Your task to perform on an android device: Search for sushi restaurants on Maps Image 0: 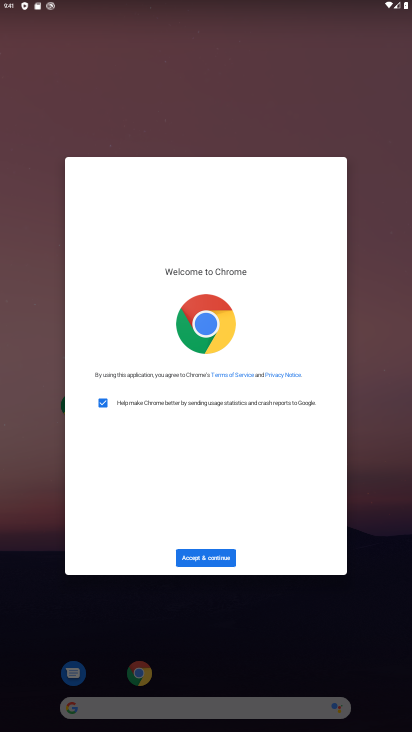
Step 0: press home button
Your task to perform on an android device: Search for sushi restaurants on Maps Image 1: 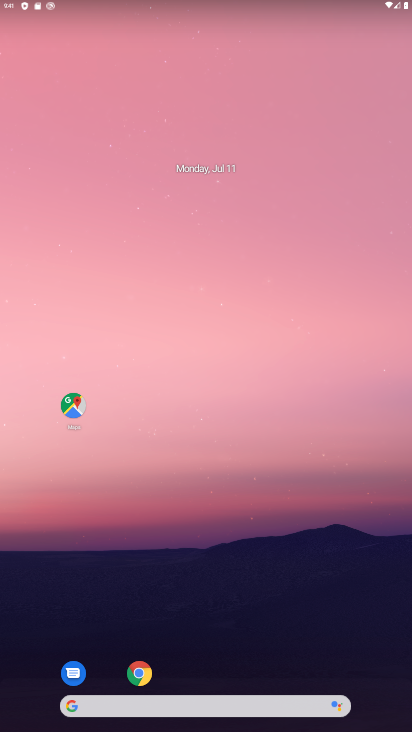
Step 1: drag from (213, 728) to (246, 105)
Your task to perform on an android device: Search for sushi restaurants on Maps Image 2: 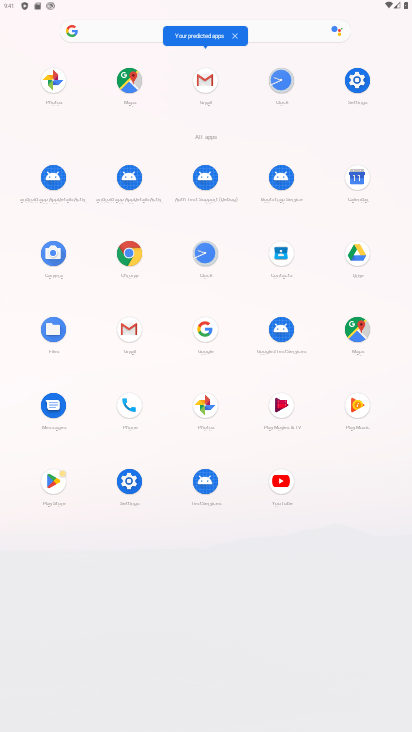
Step 2: click (349, 334)
Your task to perform on an android device: Search for sushi restaurants on Maps Image 3: 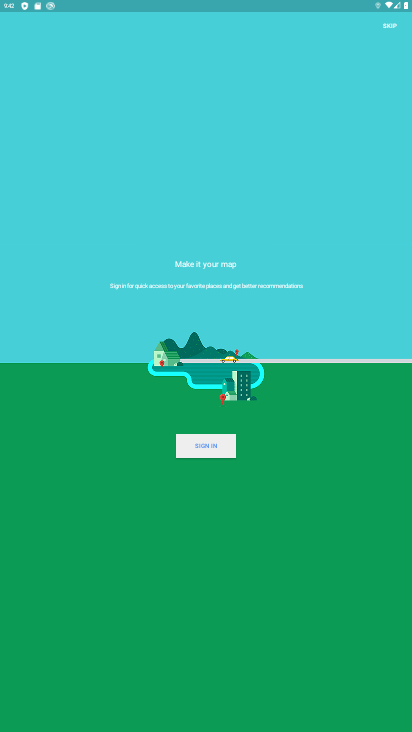
Step 3: click (386, 17)
Your task to perform on an android device: Search for sushi restaurants on Maps Image 4: 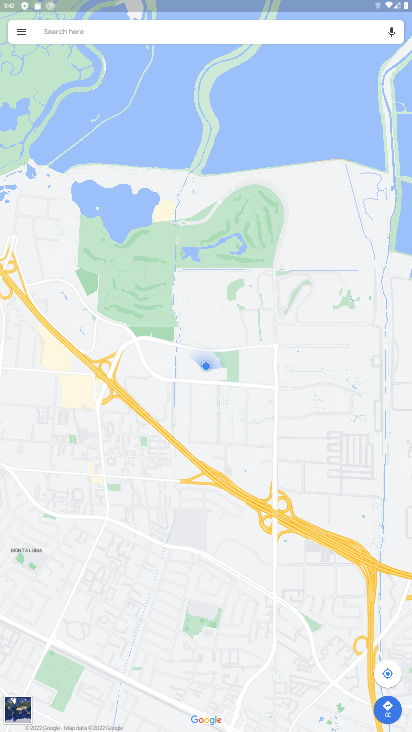
Step 4: click (138, 37)
Your task to perform on an android device: Search for sushi restaurants on Maps Image 5: 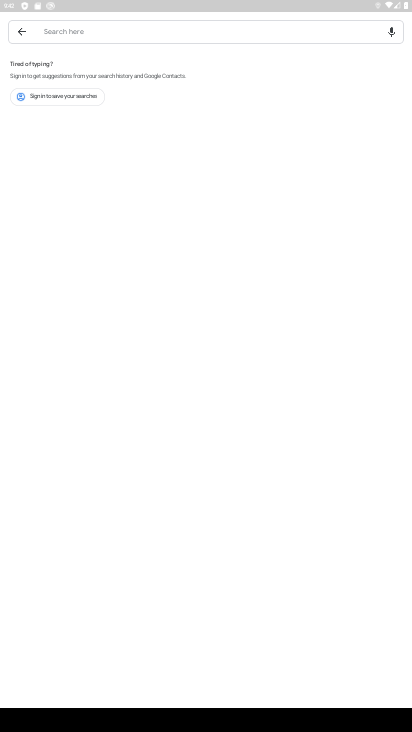
Step 5: type "sushi restaurants"
Your task to perform on an android device: Search for sushi restaurants on Maps Image 6: 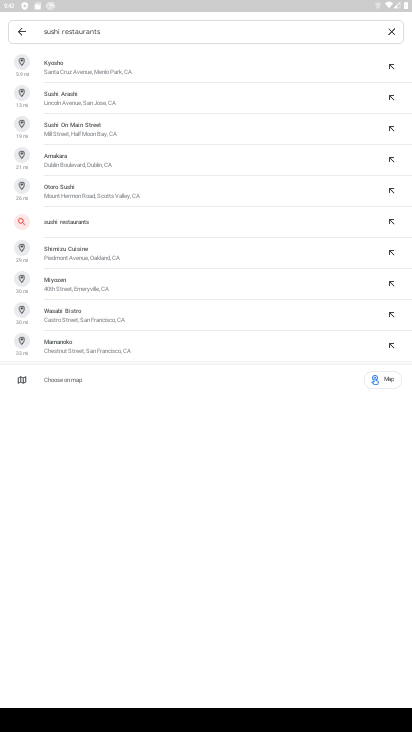
Step 6: press enter
Your task to perform on an android device: Search for sushi restaurants on Maps Image 7: 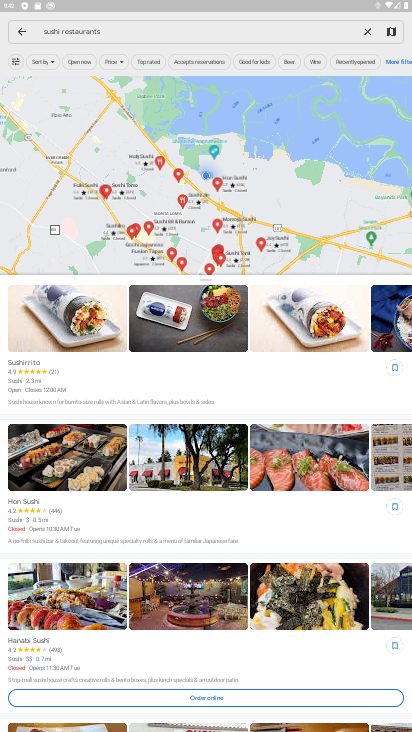
Step 7: task complete